Your task to perform on an android device: What's on my calendar tomorrow? Image 0: 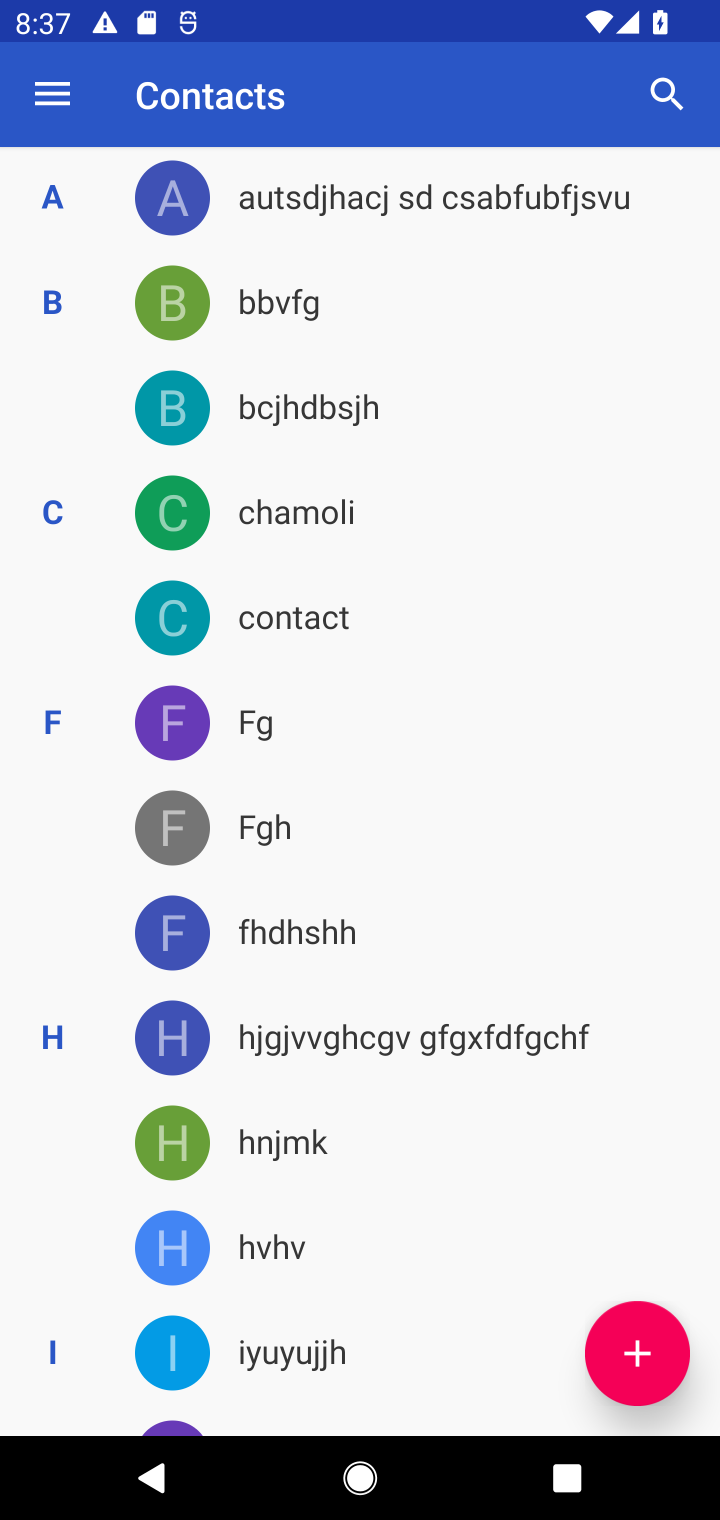
Step 0: press home button
Your task to perform on an android device: What's on my calendar tomorrow? Image 1: 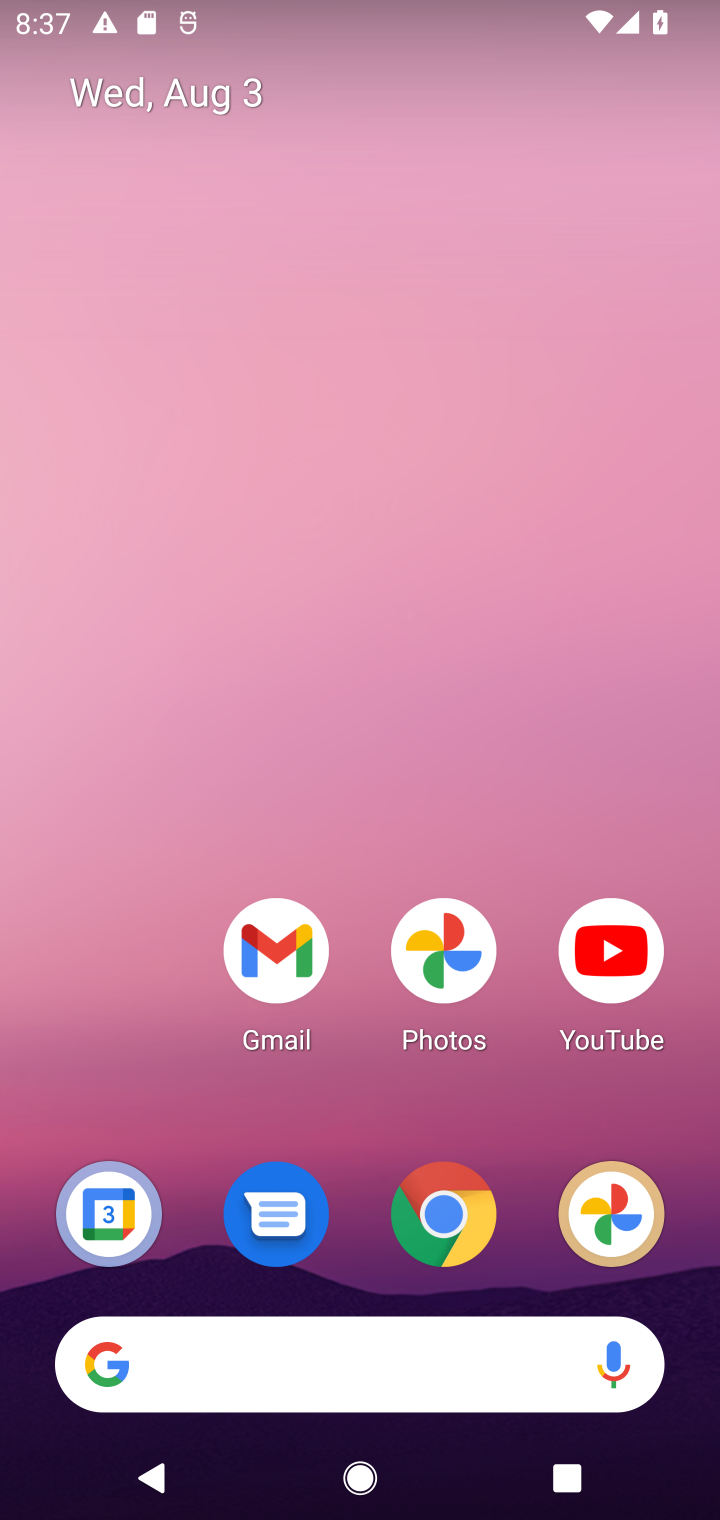
Step 1: drag from (348, 1142) to (482, 114)
Your task to perform on an android device: What's on my calendar tomorrow? Image 2: 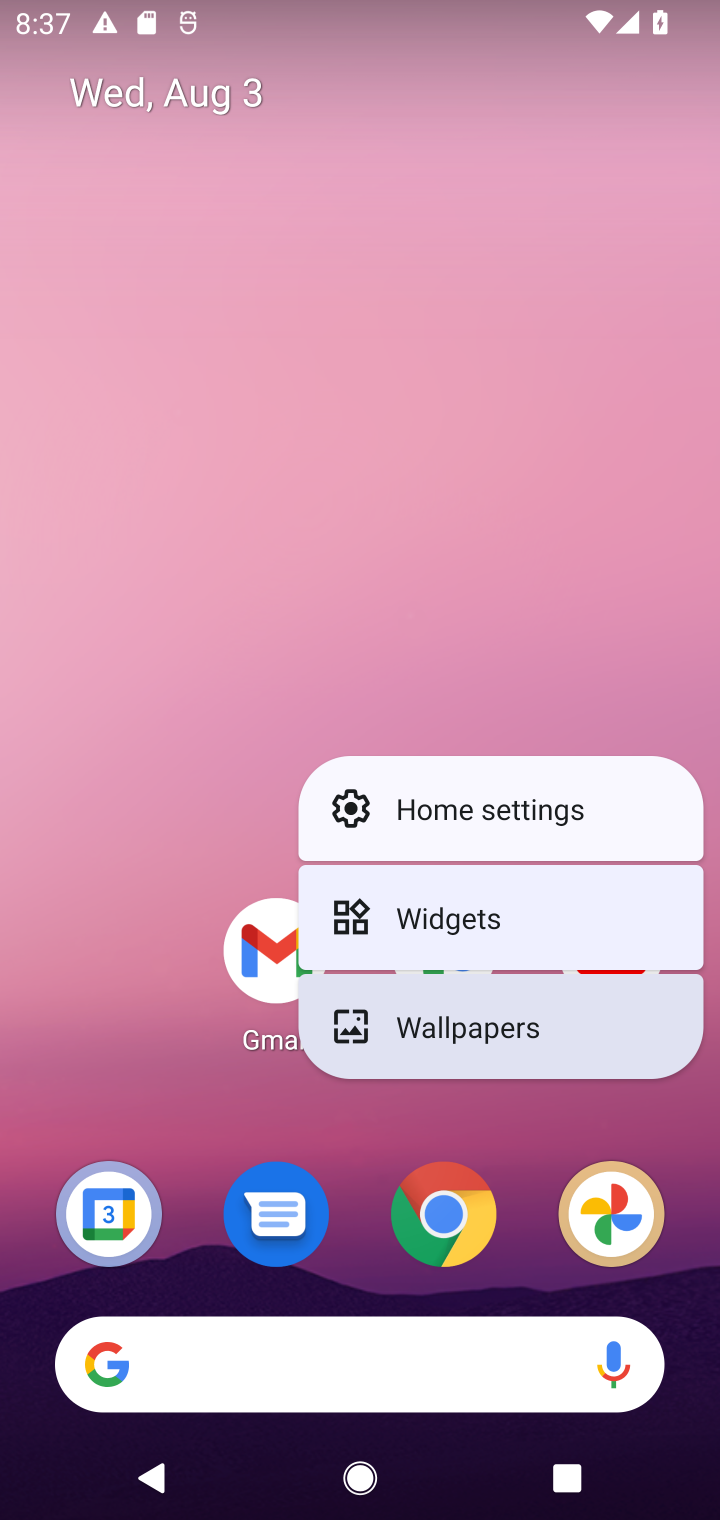
Step 2: click (73, 927)
Your task to perform on an android device: What's on my calendar tomorrow? Image 3: 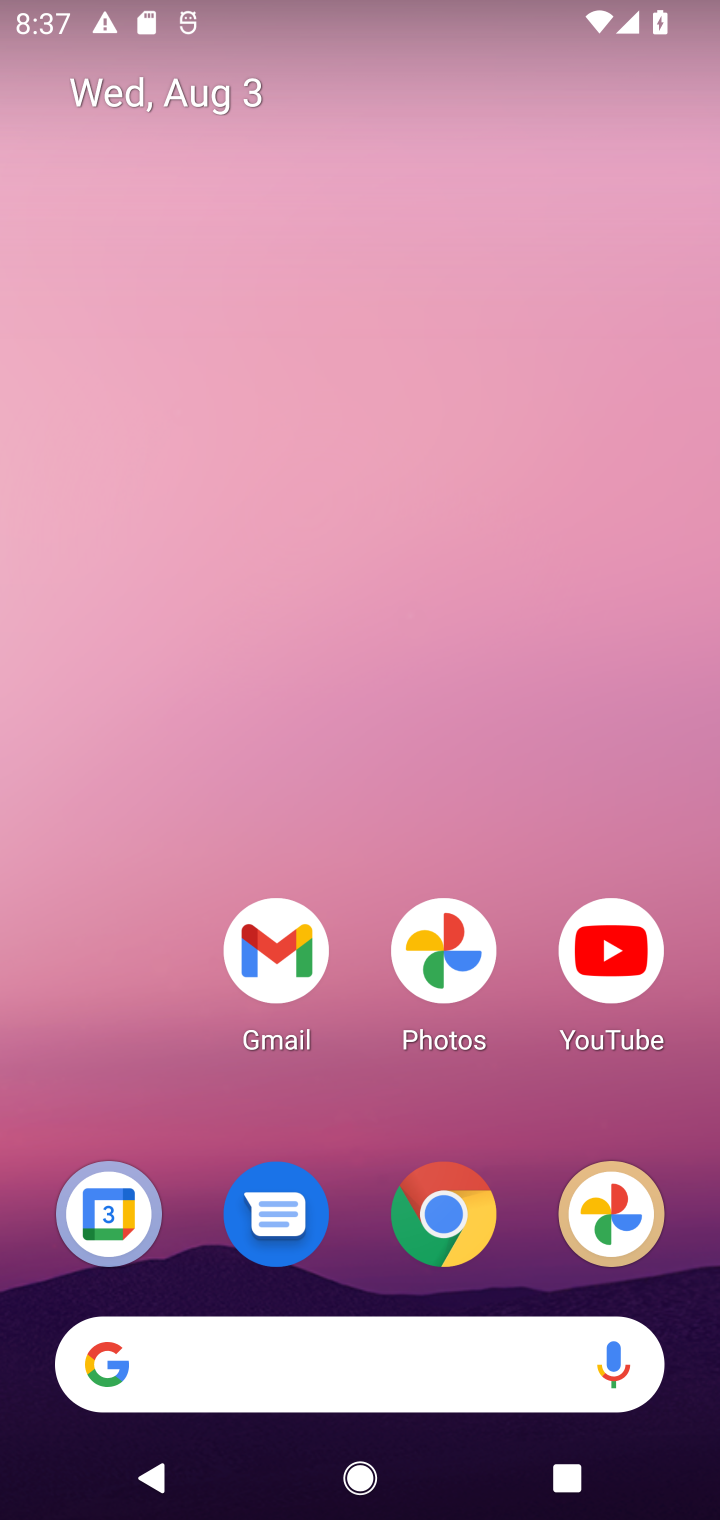
Step 3: click (90, 1198)
Your task to perform on an android device: What's on my calendar tomorrow? Image 4: 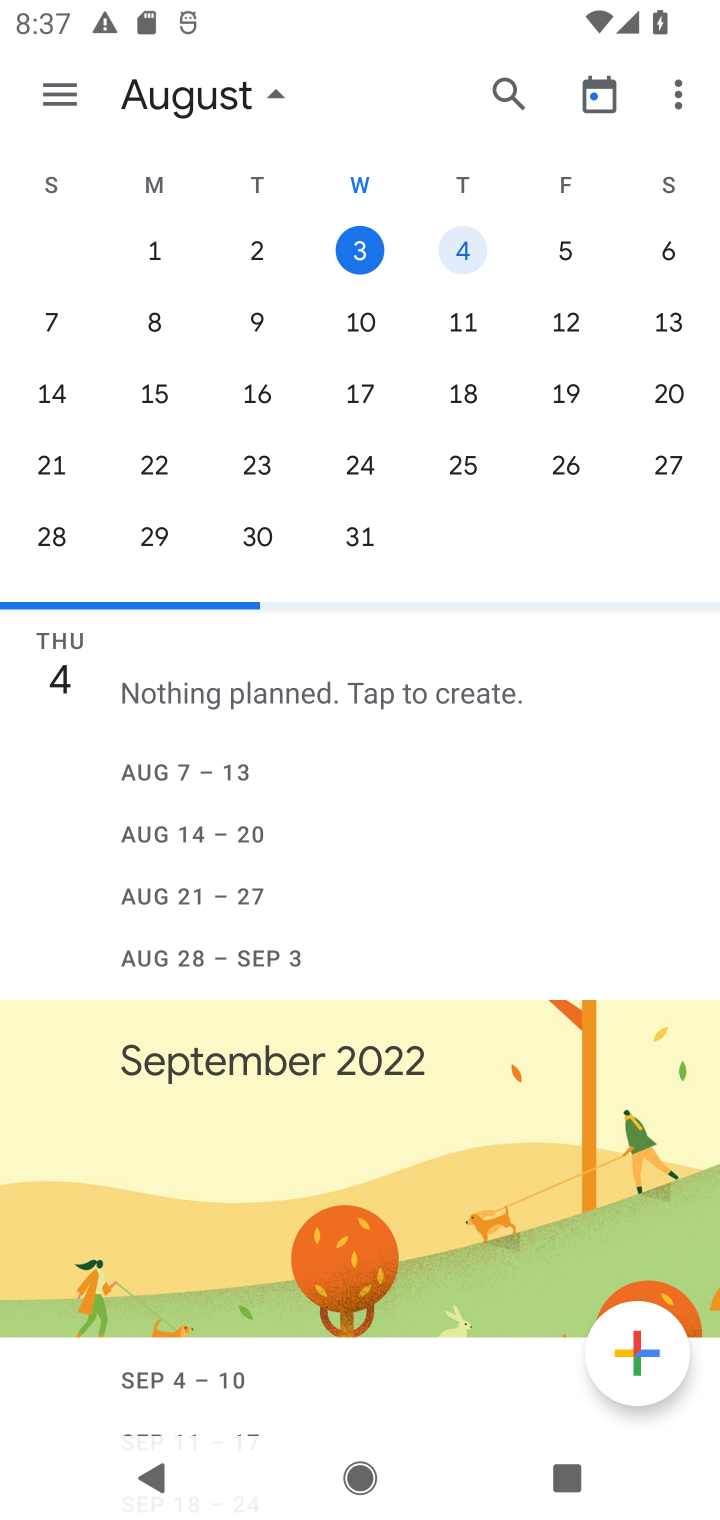
Step 4: click (454, 240)
Your task to perform on an android device: What's on my calendar tomorrow? Image 5: 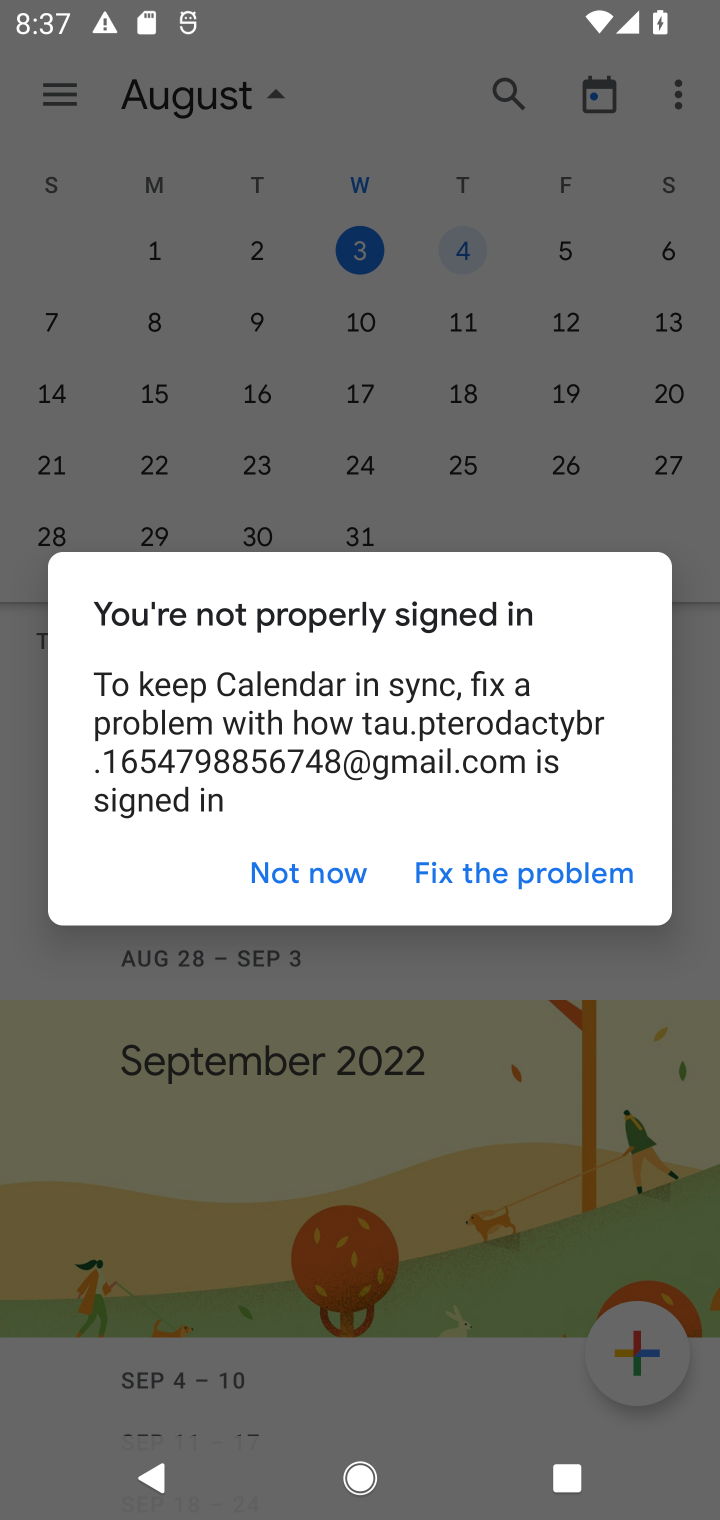
Step 5: click (309, 879)
Your task to perform on an android device: What's on my calendar tomorrow? Image 6: 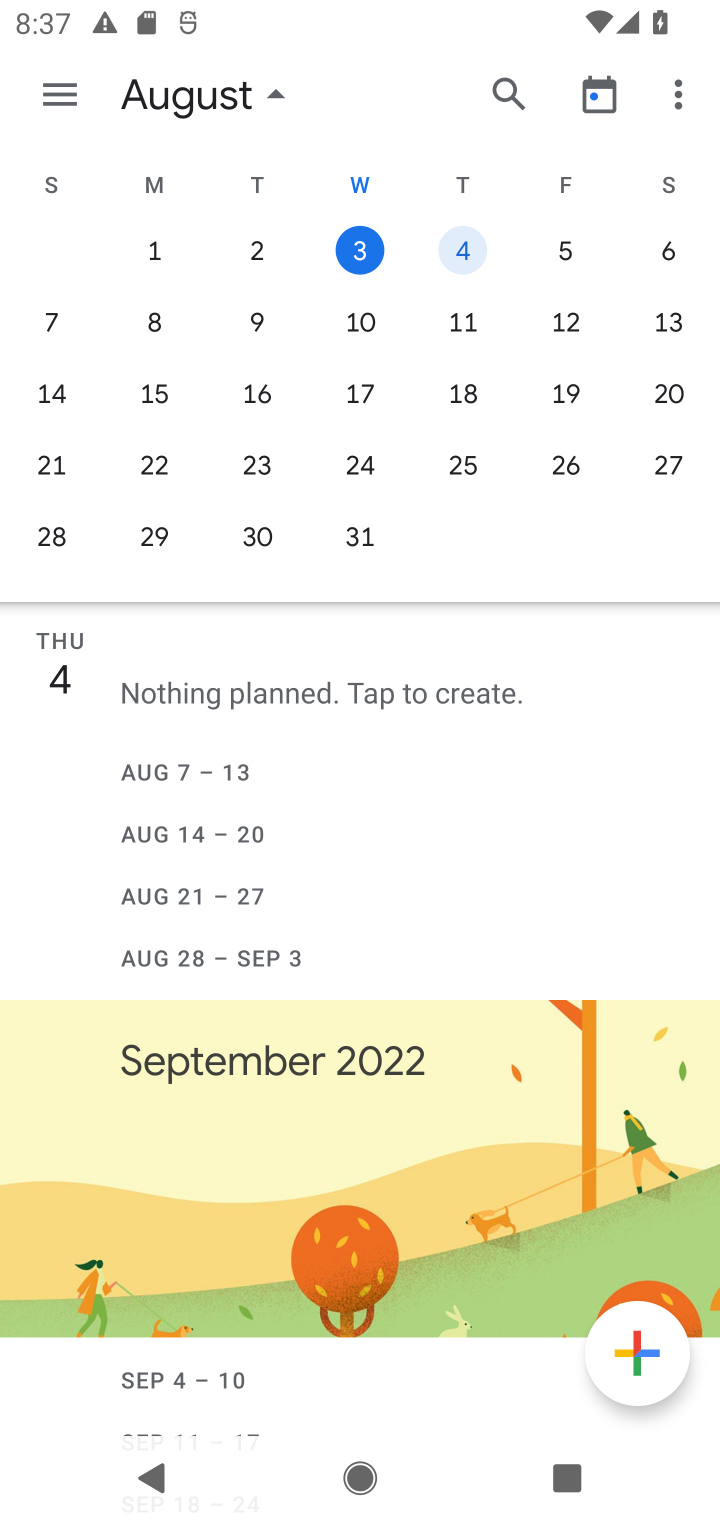
Step 6: task complete